Your task to perform on an android device: Open Youtube and go to "Your channel" Image 0: 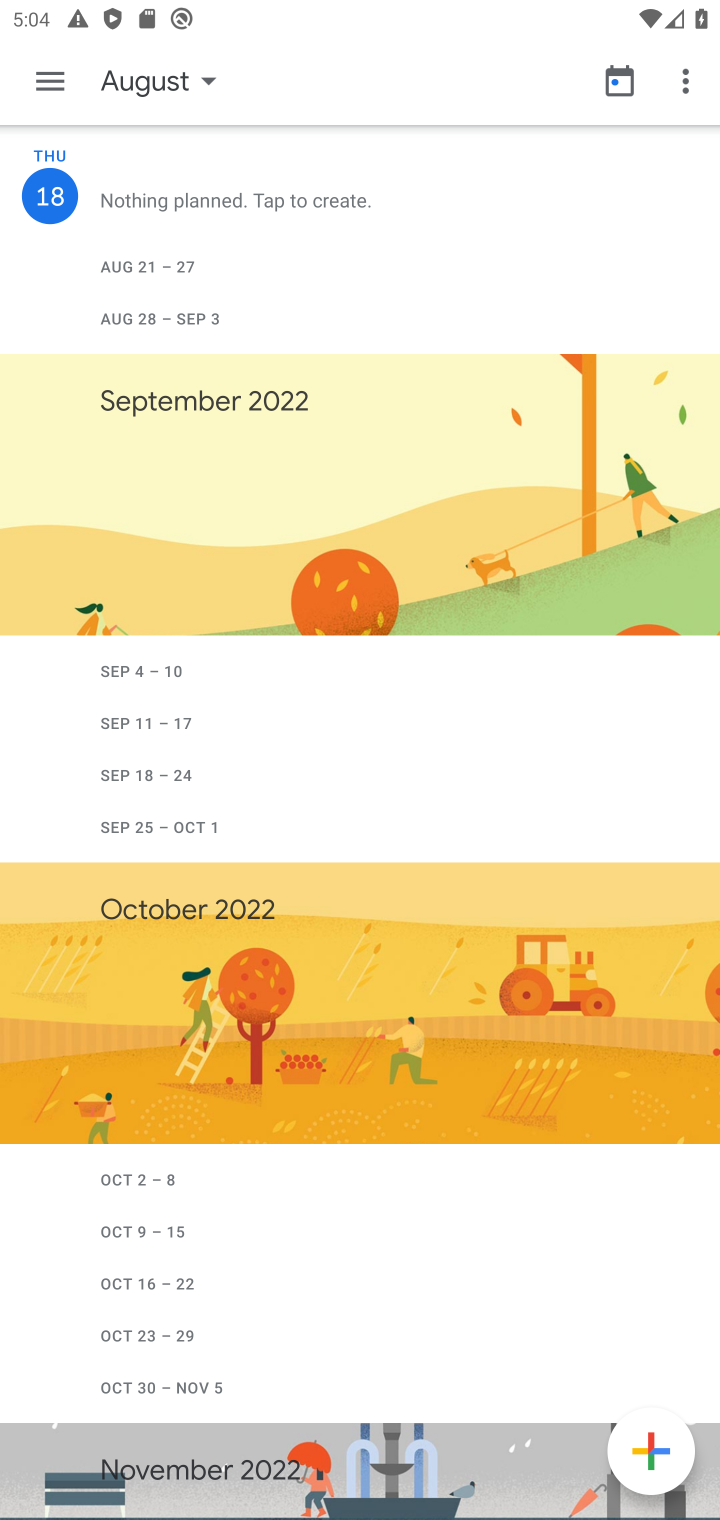
Step 0: click (324, 115)
Your task to perform on an android device: Open Youtube and go to "Your channel" Image 1: 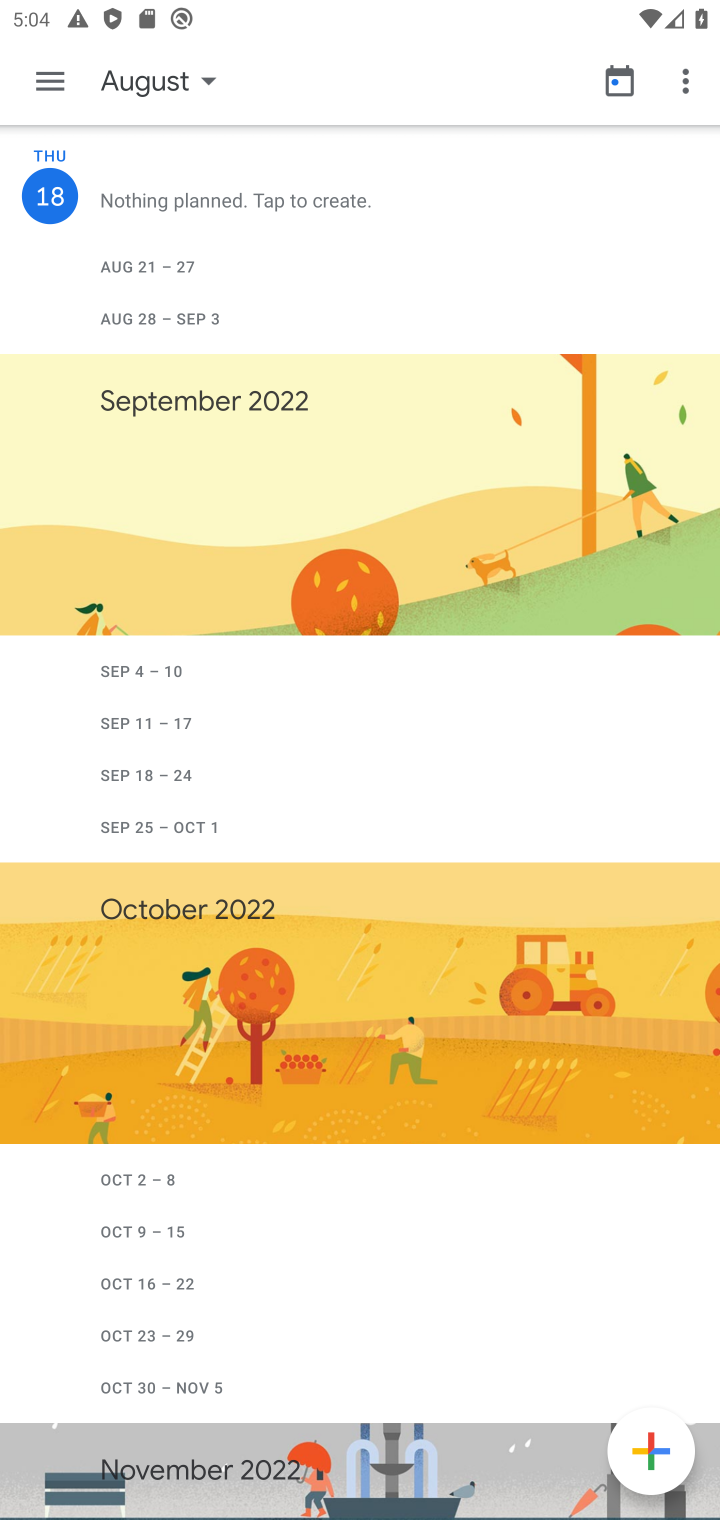
Step 1: task complete